Your task to perform on an android device: toggle javascript in the chrome app Image 0: 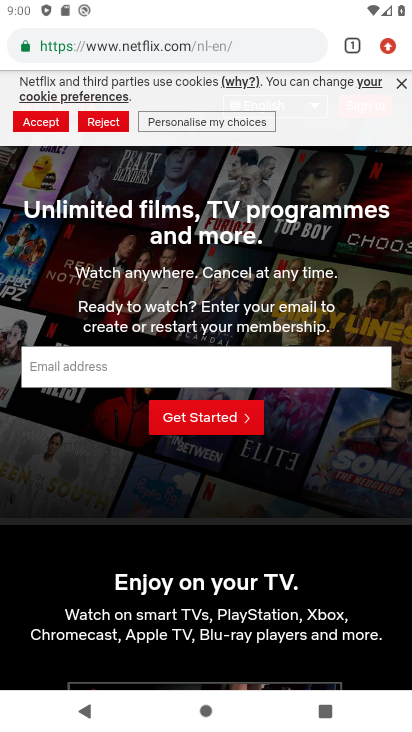
Step 0: click (398, 80)
Your task to perform on an android device: toggle javascript in the chrome app Image 1: 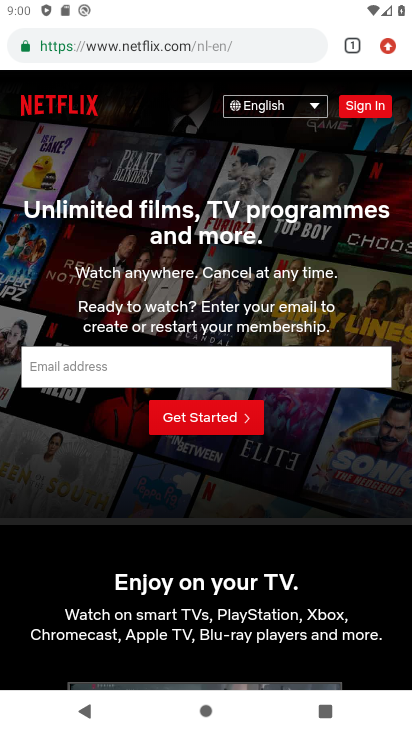
Step 1: click (385, 42)
Your task to perform on an android device: toggle javascript in the chrome app Image 2: 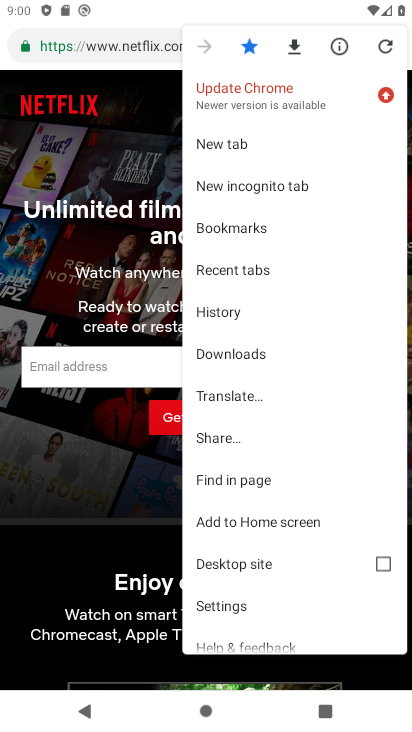
Step 2: click (254, 604)
Your task to perform on an android device: toggle javascript in the chrome app Image 3: 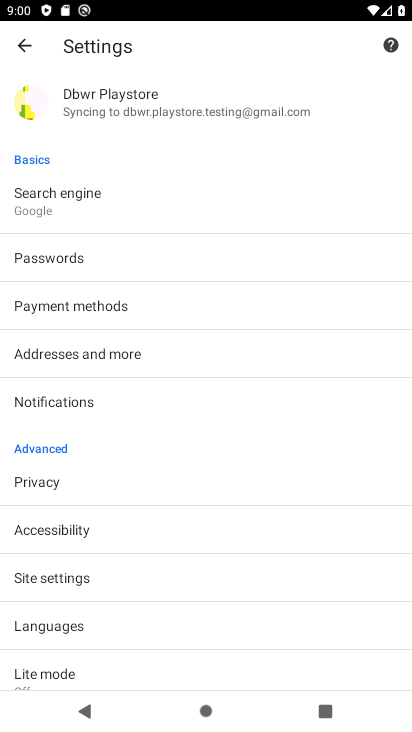
Step 3: click (94, 573)
Your task to perform on an android device: toggle javascript in the chrome app Image 4: 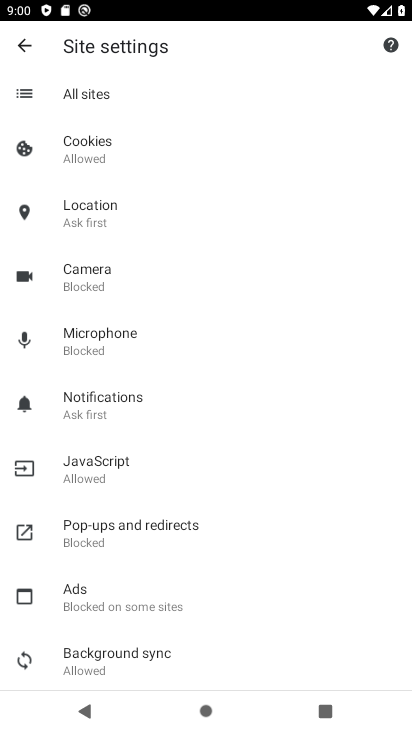
Step 4: click (147, 467)
Your task to perform on an android device: toggle javascript in the chrome app Image 5: 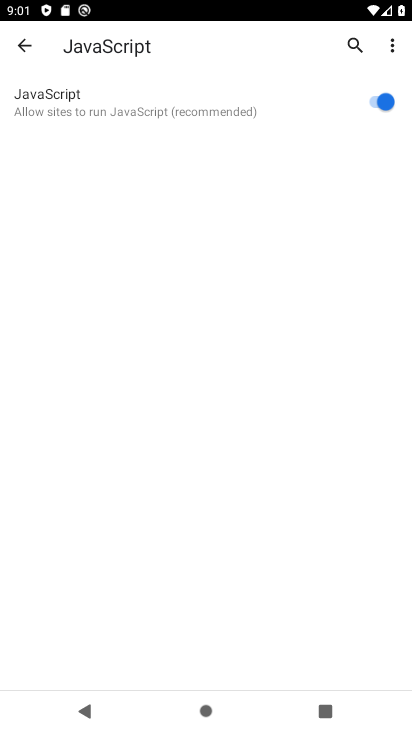
Step 5: click (375, 94)
Your task to perform on an android device: toggle javascript in the chrome app Image 6: 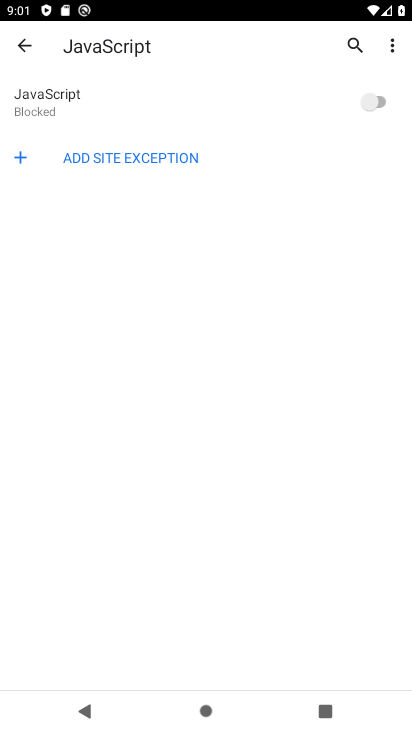
Step 6: task complete